Your task to perform on an android device: turn on wifi Image 0: 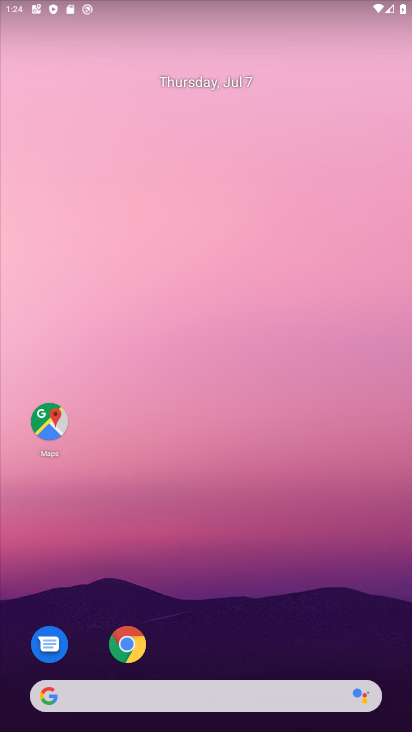
Step 0: drag from (199, 677) to (99, 119)
Your task to perform on an android device: turn on wifi Image 1: 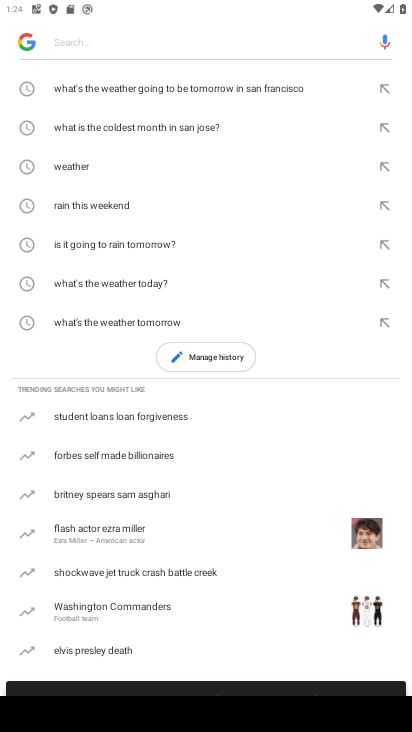
Step 1: press back button
Your task to perform on an android device: turn on wifi Image 2: 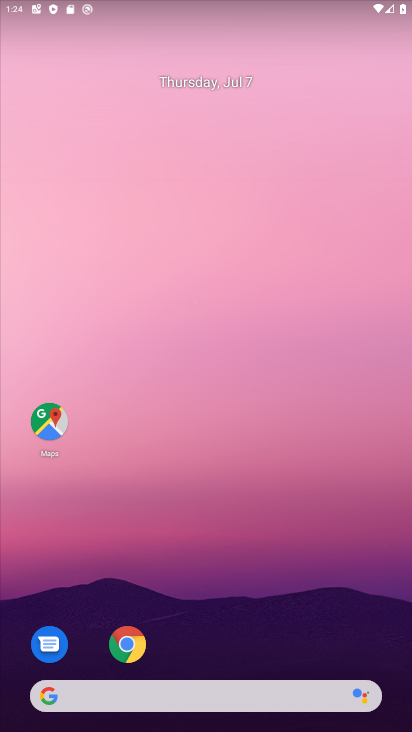
Step 2: drag from (129, 701) to (78, 57)
Your task to perform on an android device: turn on wifi Image 3: 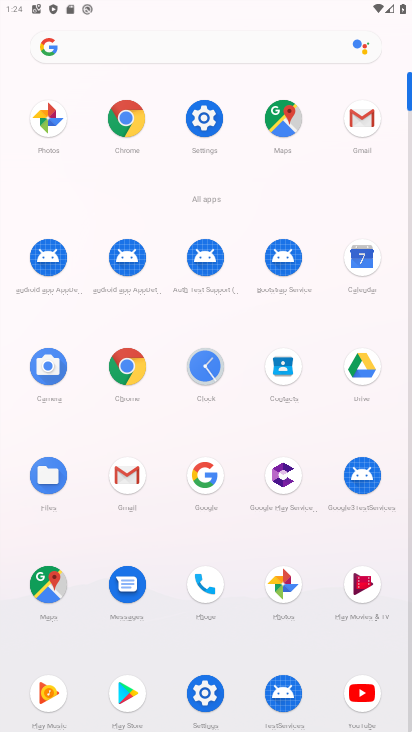
Step 3: click (200, 121)
Your task to perform on an android device: turn on wifi Image 4: 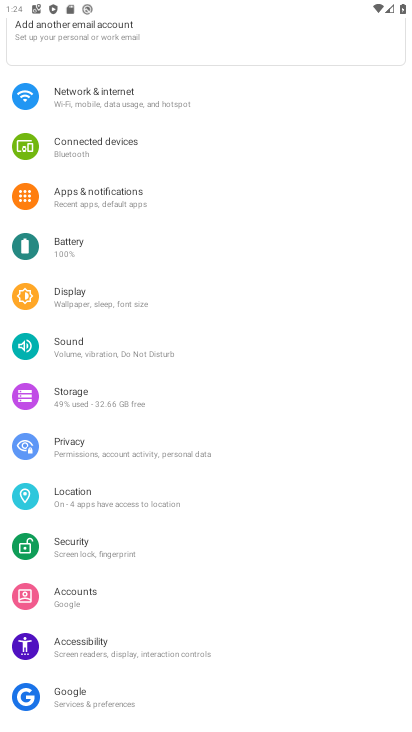
Step 4: click (124, 86)
Your task to perform on an android device: turn on wifi Image 5: 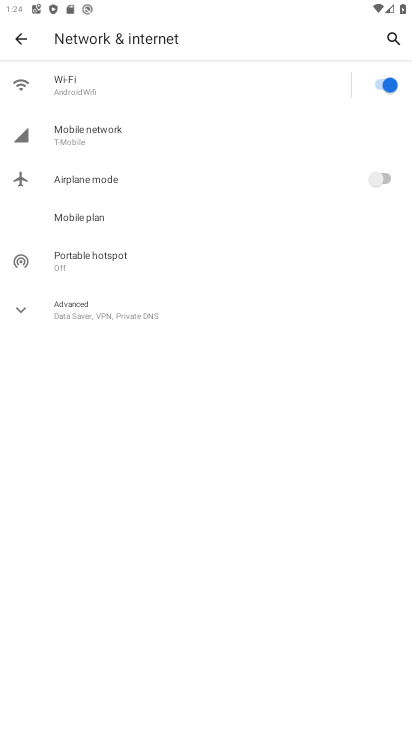
Step 5: task complete